Your task to perform on an android device: Open the stopwatch Image 0: 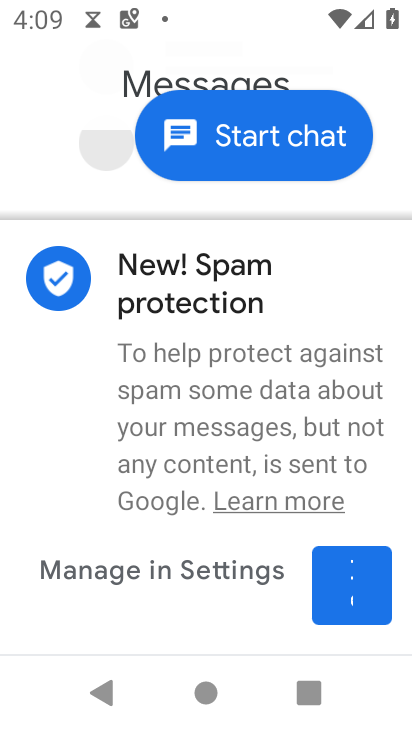
Step 0: drag from (288, 657) to (269, 104)
Your task to perform on an android device: Open the stopwatch Image 1: 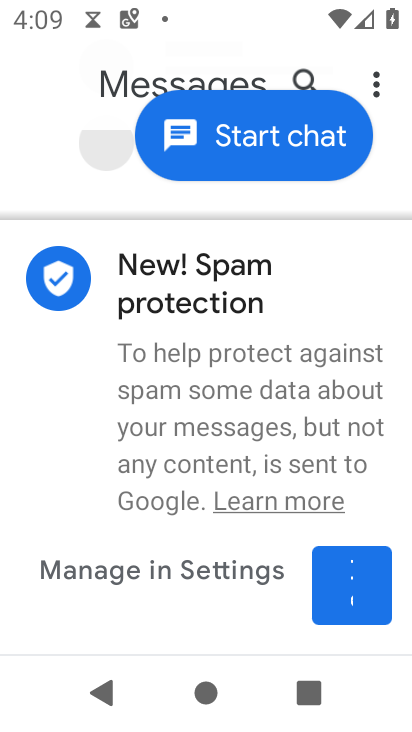
Step 1: press home button
Your task to perform on an android device: Open the stopwatch Image 2: 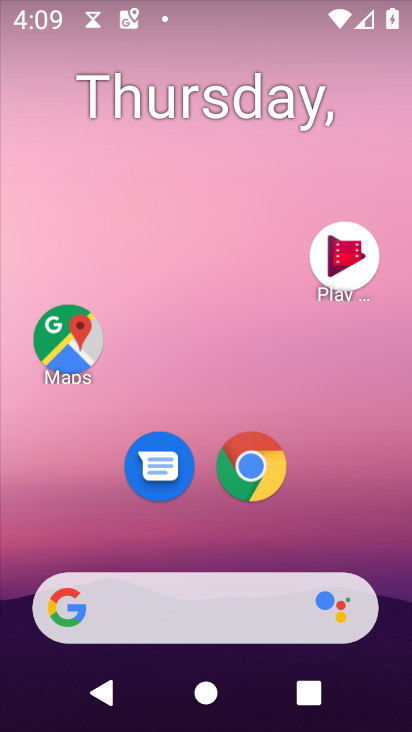
Step 2: drag from (246, 553) to (315, 6)
Your task to perform on an android device: Open the stopwatch Image 3: 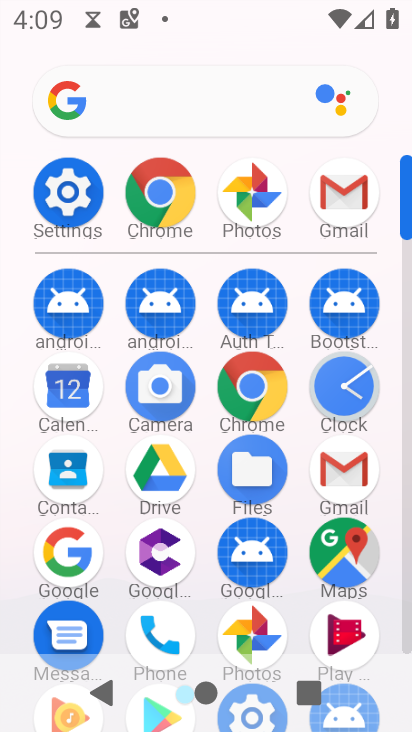
Step 3: click (333, 392)
Your task to perform on an android device: Open the stopwatch Image 4: 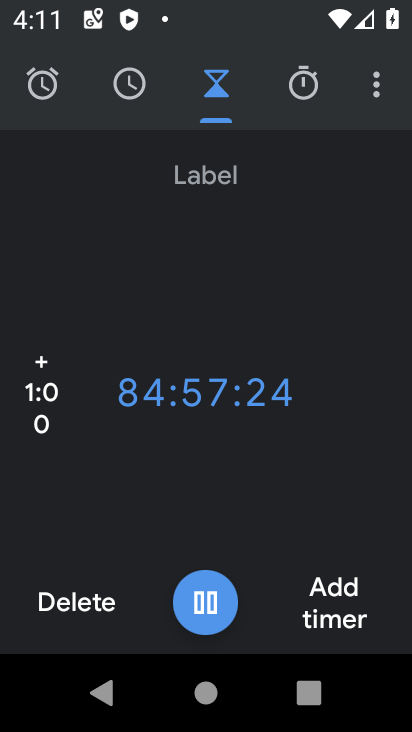
Step 4: click (305, 77)
Your task to perform on an android device: Open the stopwatch Image 5: 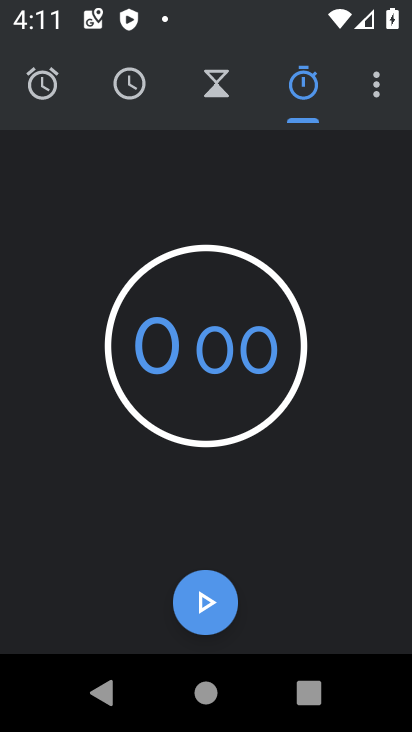
Step 5: click (179, 600)
Your task to perform on an android device: Open the stopwatch Image 6: 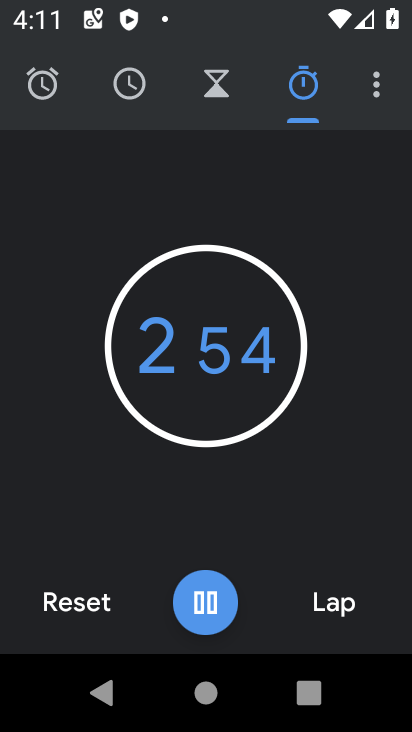
Step 6: task complete